Your task to perform on an android device: Open accessibility settings Image 0: 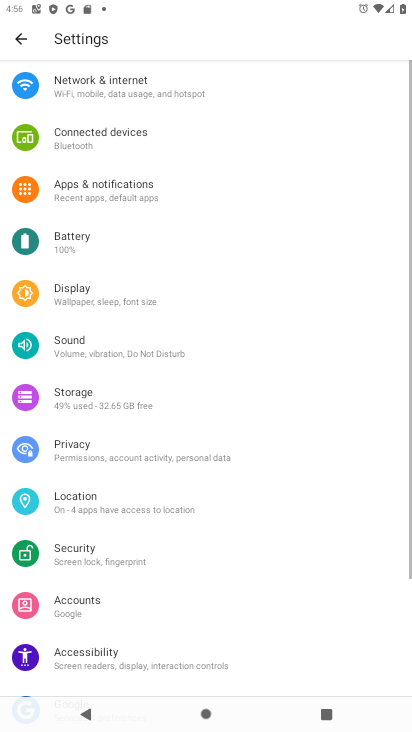
Step 0: click (120, 661)
Your task to perform on an android device: Open accessibility settings Image 1: 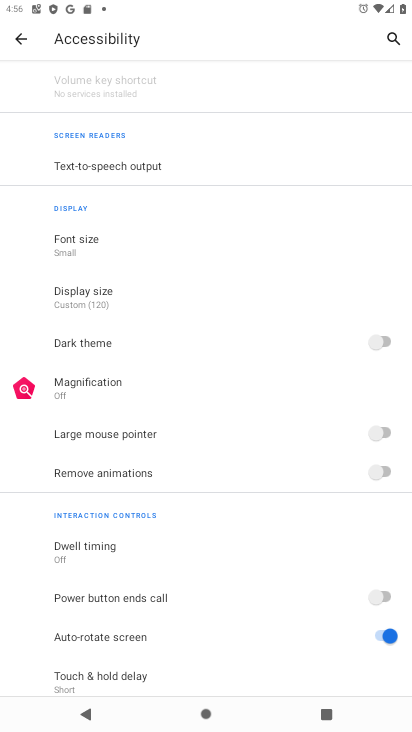
Step 1: task complete